Your task to perform on an android device: Open calendar and show me the second week of next month Image 0: 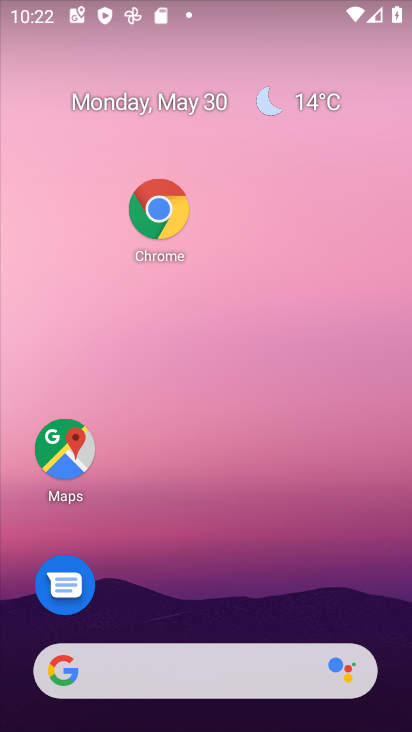
Step 0: drag from (198, 603) to (241, 156)
Your task to perform on an android device: Open calendar and show me the second week of next month Image 1: 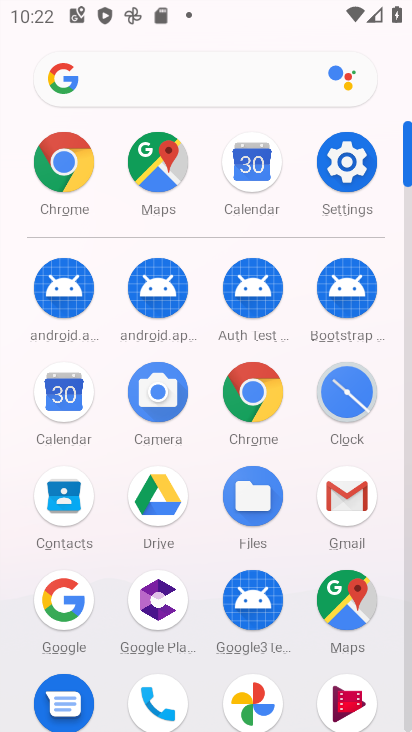
Step 1: click (60, 387)
Your task to perform on an android device: Open calendar and show me the second week of next month Image 2: 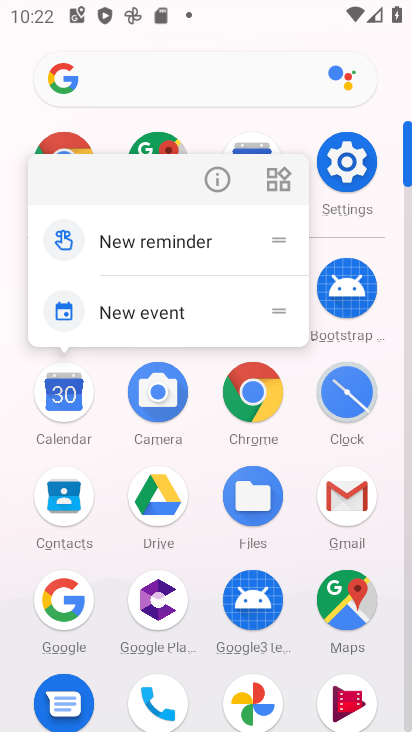
Step 2: click (213, 185)
Your task to perform on an android device: Open calendar and show me the second week of next month Image 3: 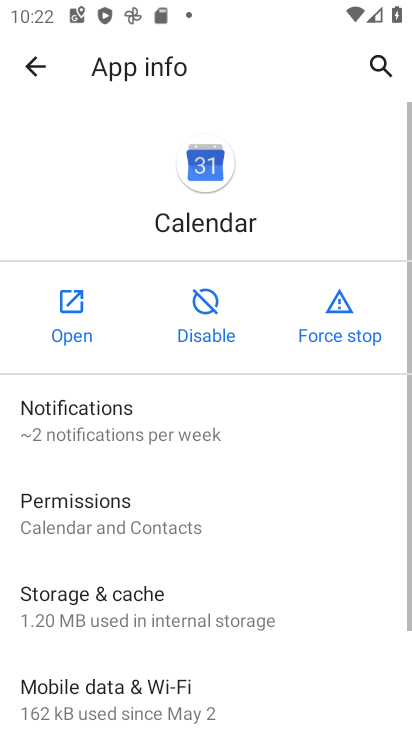
Step 3: click (69, 286)
Your task to perform on an android device: Open calendar and show me the second week of next month Image 4: 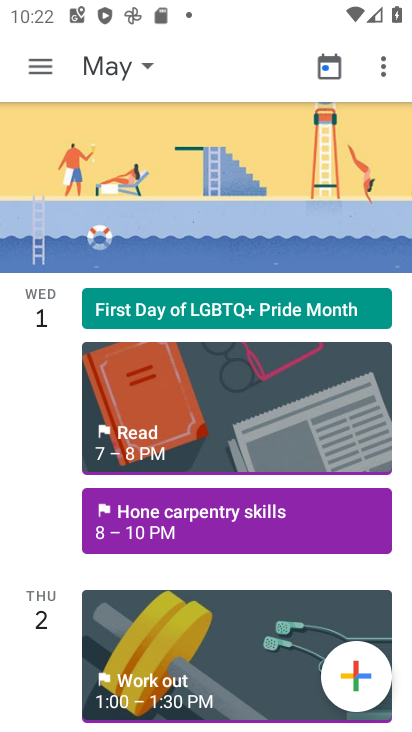
Step 4: click (42, 71)
Your task to perform on an android device: Open calendar and show me the second week of next month Image 5: 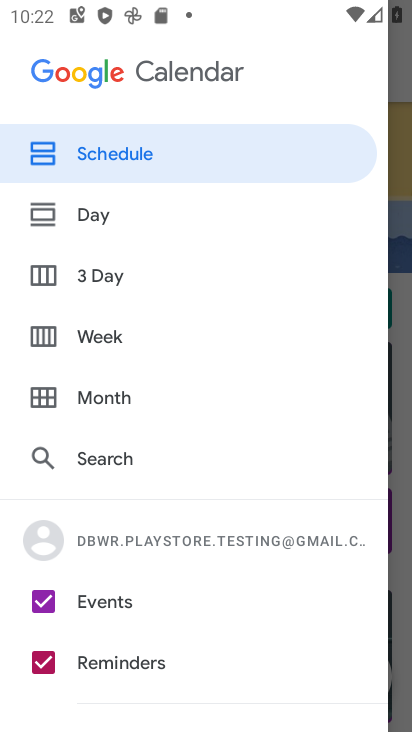
Step 5: click (111, 142)
Your task to perform on an android device: Open calendar and show me the second week of next month Image 6: 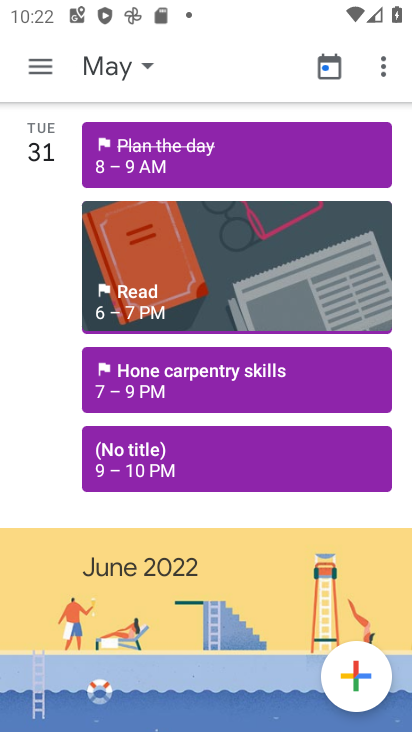
Step 6: click (118, 69)
Your task to perform on an android device: Open calendar and show me the second week of next month Image 7: 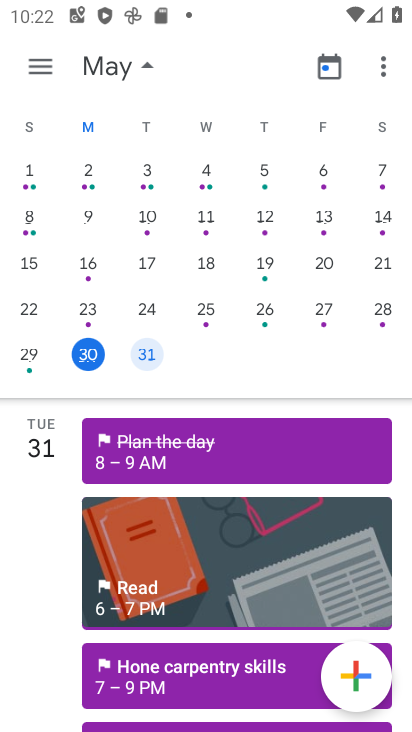
Step 7: drag from (331, 369) to (35, 278)
Your task to perform on an android device: Open calendar and show me the second week of next month Image 8: 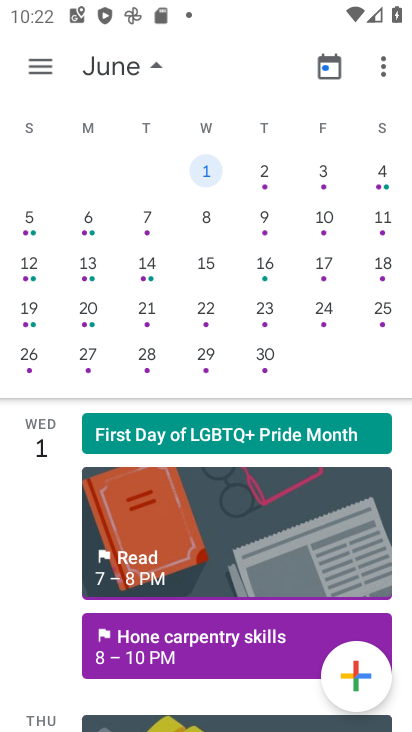
Step 8: click (263, 223)
Your task to perform on an android device: Open calendar and show me the second week of next month Image 9: 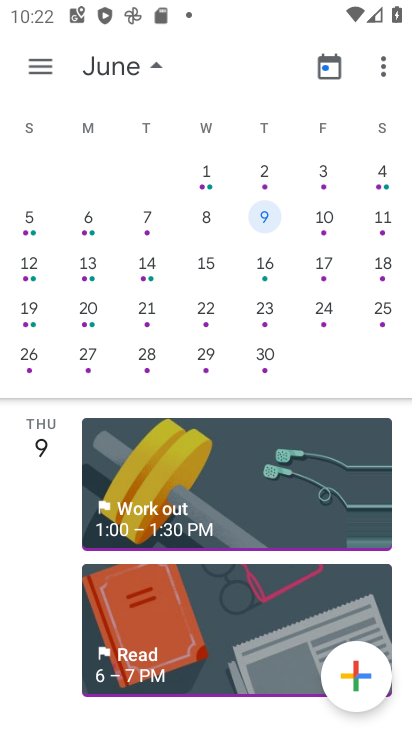
Step 9: task complete